Your task to perform on an android device: make emails show in primary in the gmail app Image 0: 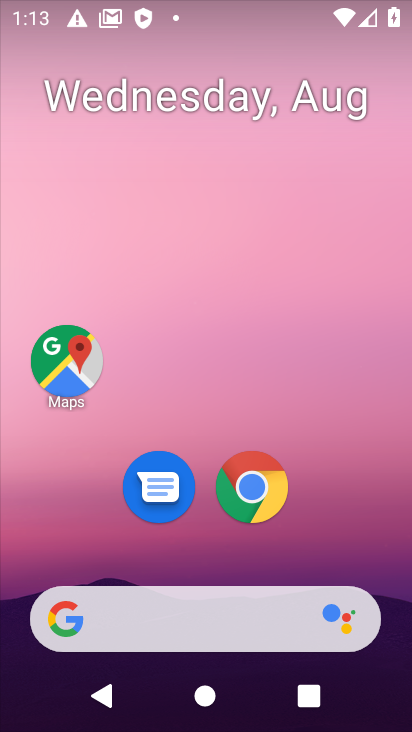
Step 0: press home button
Your task to perform on an android device: make emails show in primary in the gmail app Image 1: 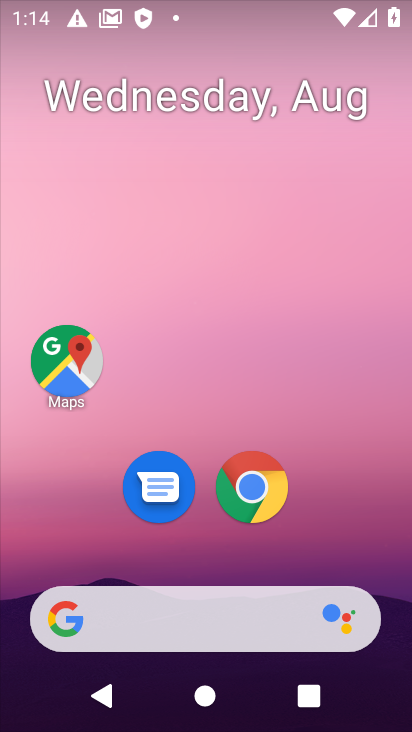
Step 1: drag from (338, 563) to (248, 109)
Your task to perform on an android device: make emails show in primary in the gmail app Image 2: 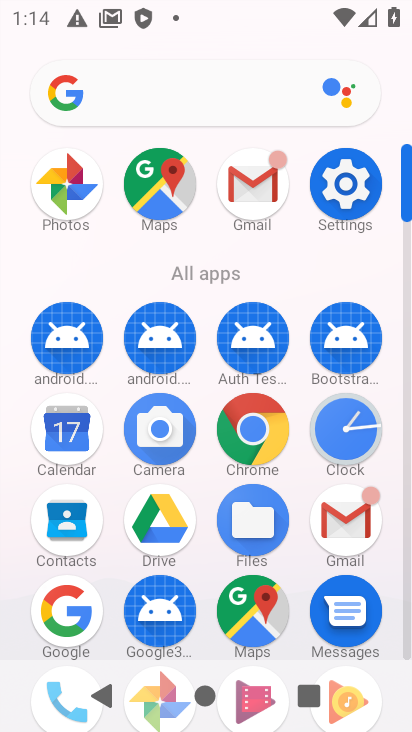
Step 2: click (251, 195)
Your task to perform on an android device: make emails show in primary in the gmail app Image 3: 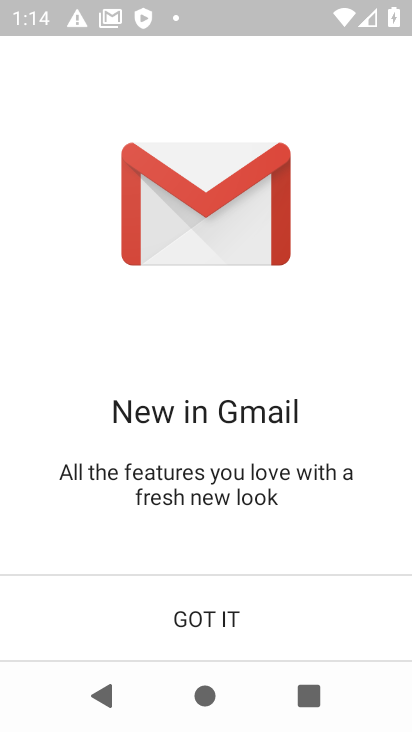
Step 3: click (223, 617)
Your task to perform on an android device: make emails show in primary in the gmail app Image 4: 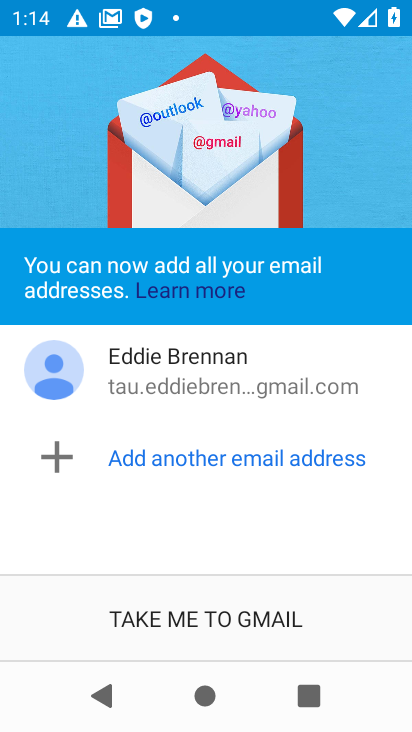
Step 4: click (212, 615)
Your task to perform on an android device: make emails show in primary in the gmail app Image 5: 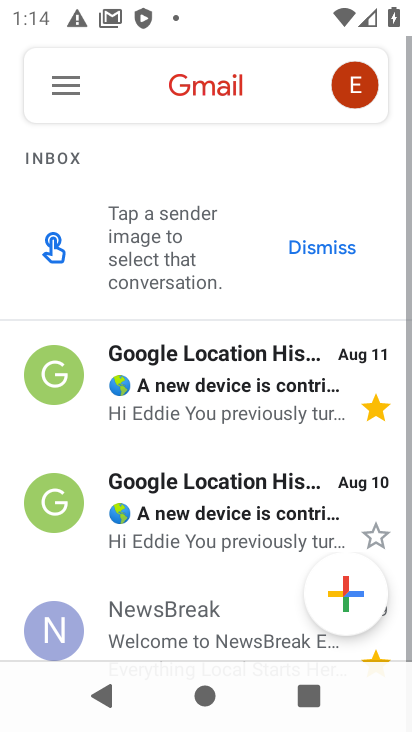
Step 5: click (61, 84)
Your task to perform on an android device: make emails show in primary in the gmail app Image 6: 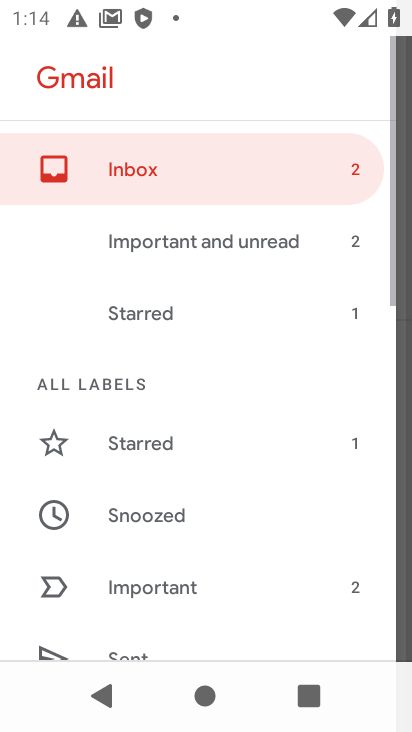
Step 6: drag from (304, 629) to (265, 164)
Your task to perform on an android device: make emails show in primary in the gmail app Image 7: 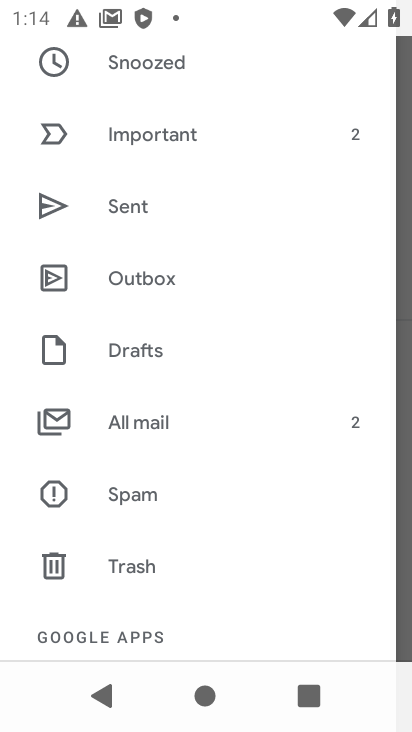
Step 7: drag from (282, 583) to (256, 337)
Your task to perform on an android device: make emails show in primary in the gmail app Image 8: 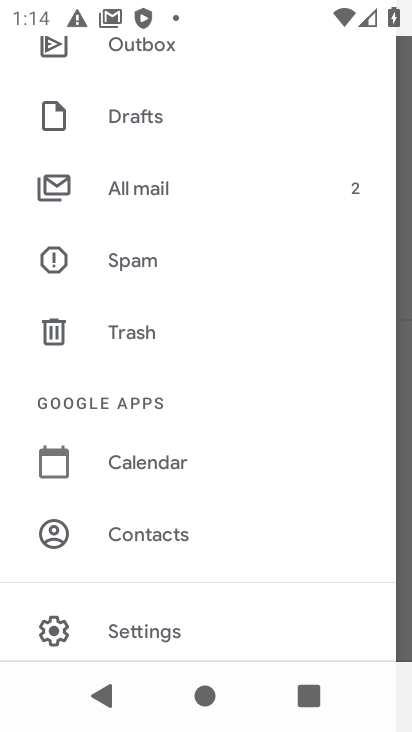
Step 8: click (141, 629)
Your task to perform on an android device: make emails show in primary in the gmail app Image 9: 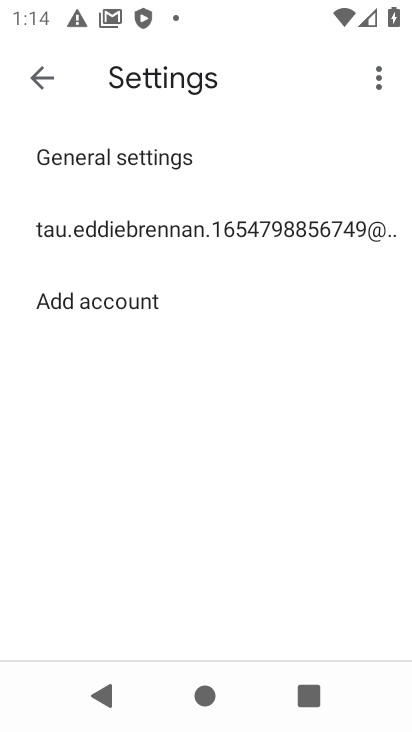
Step 9: click (178, 235)
Your task to perform on an android device: make emails show in primary in the gmail app Image 10: 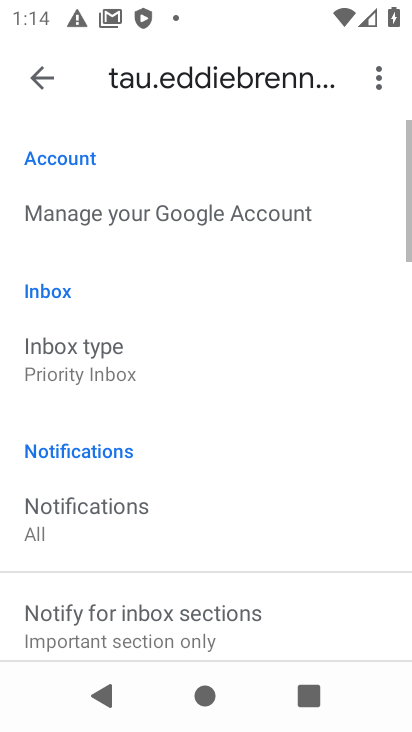
Step 10: task complete